Your task to perform on an android device: Open Google Image 0: 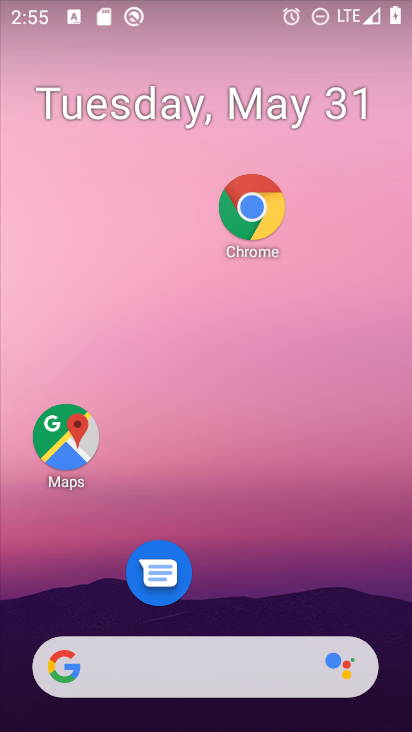
Step 0: drag from (269, 620) to (294, 96)
Your task to perform on an android device: Open Google Image 1: 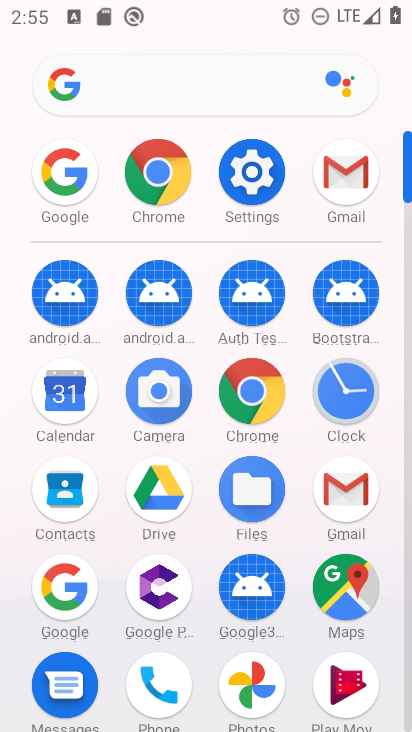
Step 1: click (63, 591)
Your task to perform on an android device: Open Google Image 2: 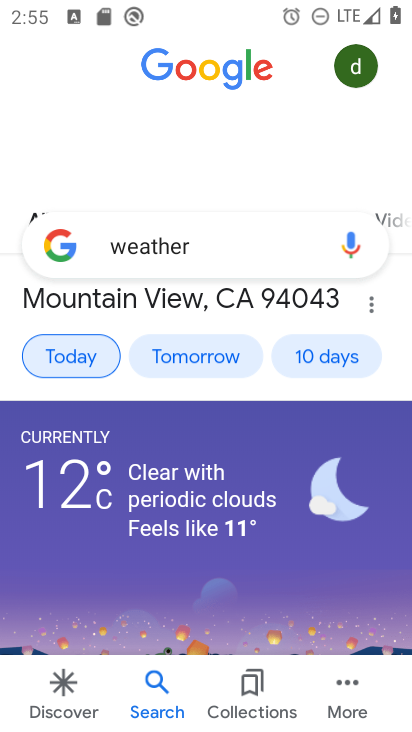
Step 2: task complete